Your task to perform on an android device: Is it going to rain today? Image 0: 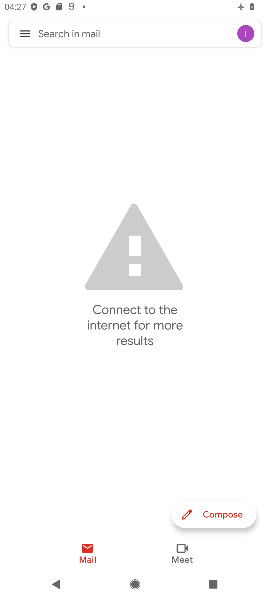
Step 0: press home button
Your task to perform on an android device: Is it going to rain today? Image 1: 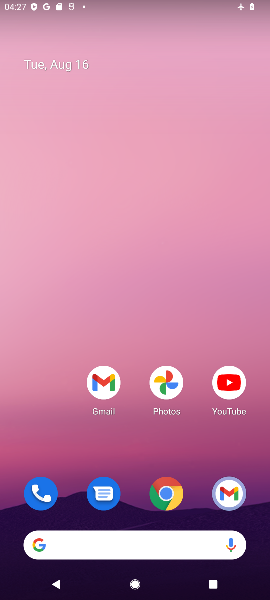
Step 1: click (145, 545)
Your task to perform on an android device: Is it going to rain today? Image 2: 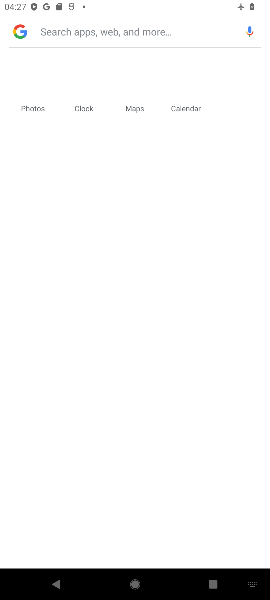
Step 2: type "weather"
Your task to perform on an android device: Is it going to rain today? Image 3: 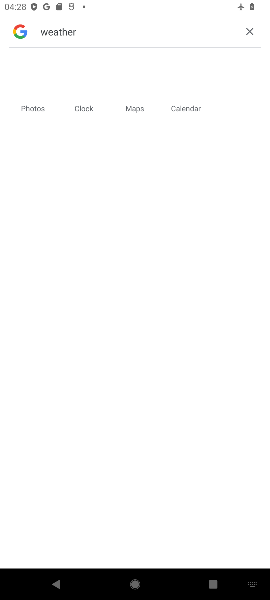
Step 3: task complete